Your task to perform on an android device: check battery use Image 0: 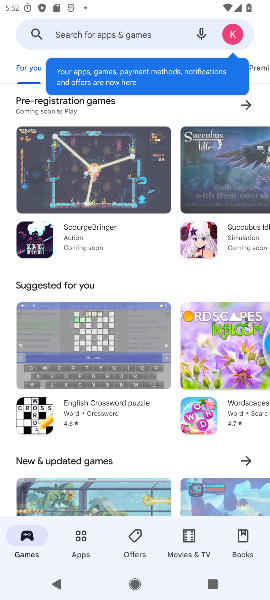
Step 0: press home button
Your task to perform on an android device: check battery use Image 1: 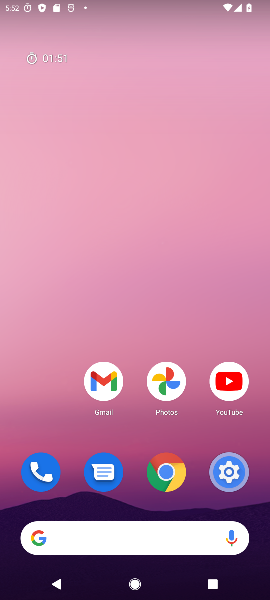
Step 1: click (231, 474)
Your task to perform on an android device: check battery use Image 2: 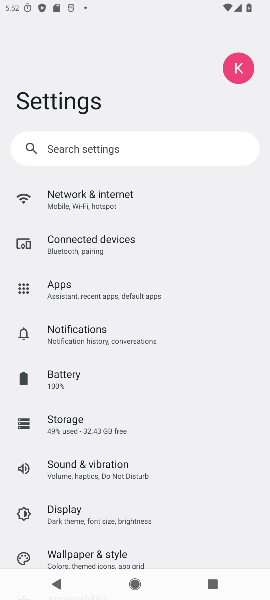
Step 2: click (53, 378)
Your task to perform on an android device: check battery use Image 3: 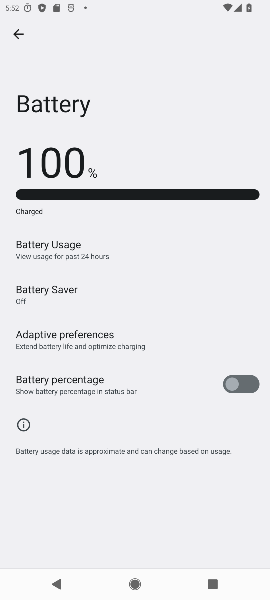
Step 3: click (49, 248)
Your task to perform on an android device: check battery use Image 4: 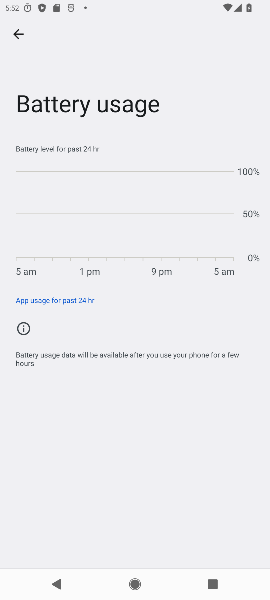
Step 4: task complete